Your task to perform on an android device: Check the news Image 0: 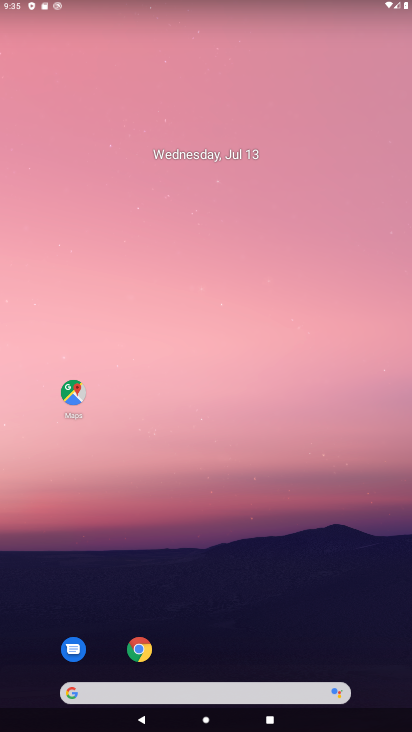
Step 0: click (210, 692)
Your task to perform on an android device: Check the news Image 1: 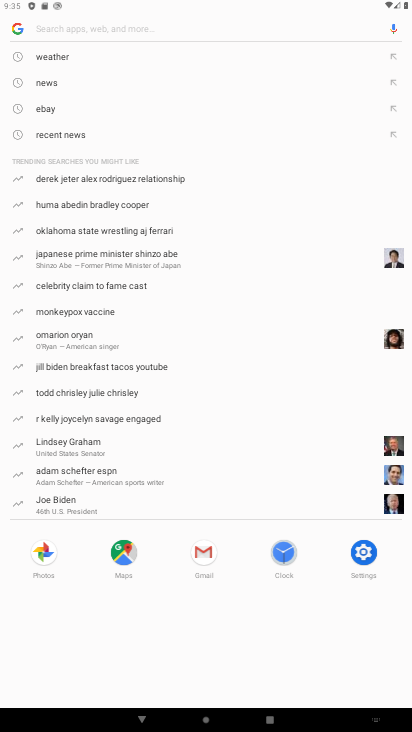
Step 1: type "news"
Your task to perform on an android device: Check the news Image 2: 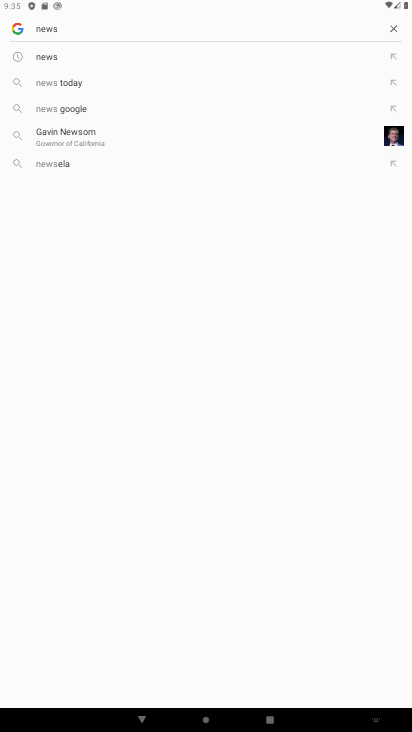
Step 2: click (54, 60)
Your task to perform on an android device: Check the news Image 3: 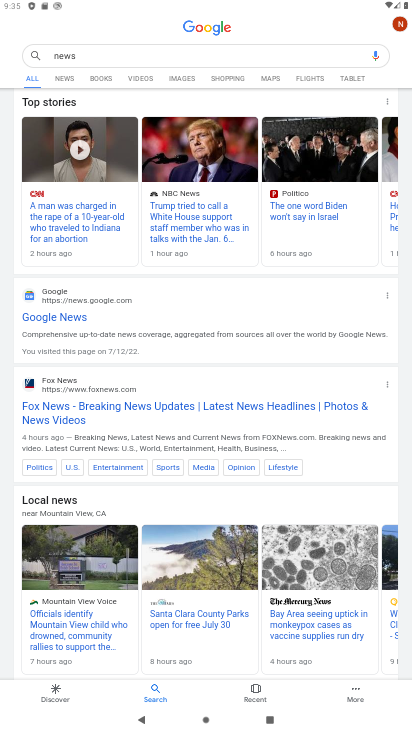
Step 3: task complete